Your task to perform on an android device: toggle wifi Image 0: 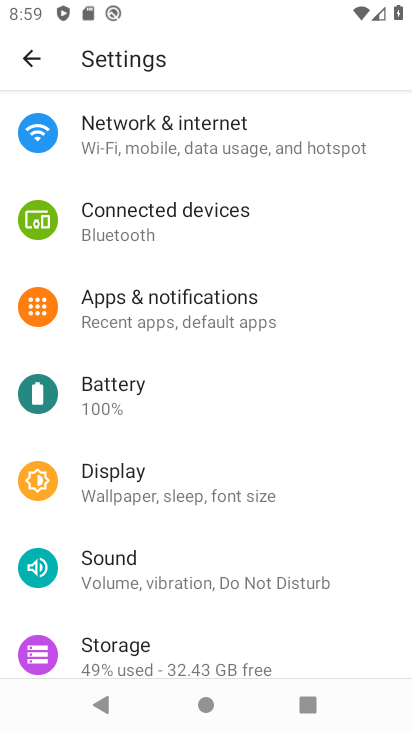
Step 0: press home button
Your task to perform on an android device: toggle wifi Image 1: 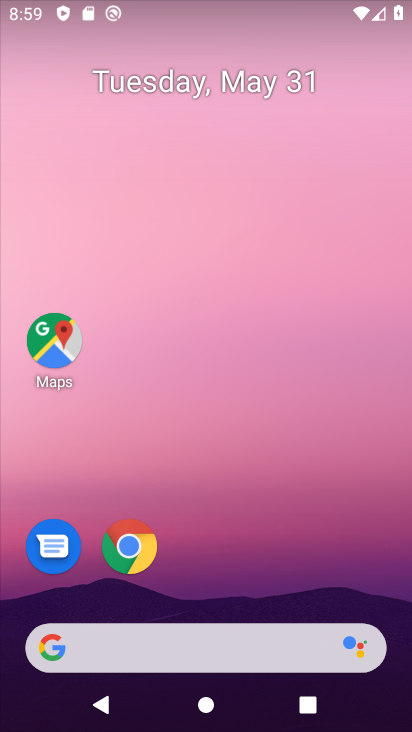
Step 1: drag from (404, 549) to (381, 109)
Your task to perform on an android device: toggle wifi Image 2: 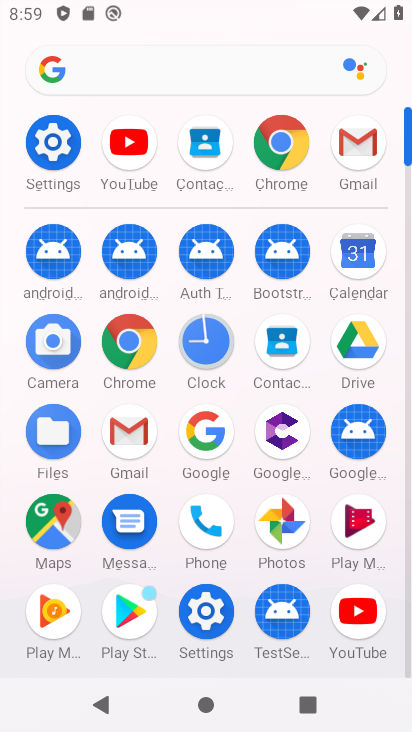
Step 2: click (55, 141)
Your task to perform on an android device: toggle wifi Image 3: 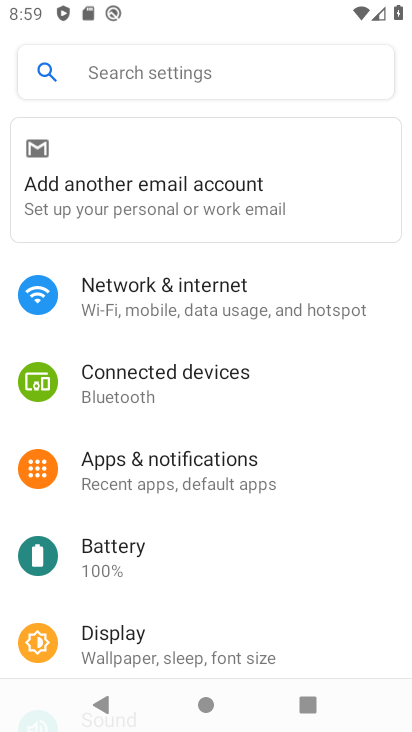
Step 3: click (165, 309)
Your task to perform on an android device: toggle wifi Image 4: 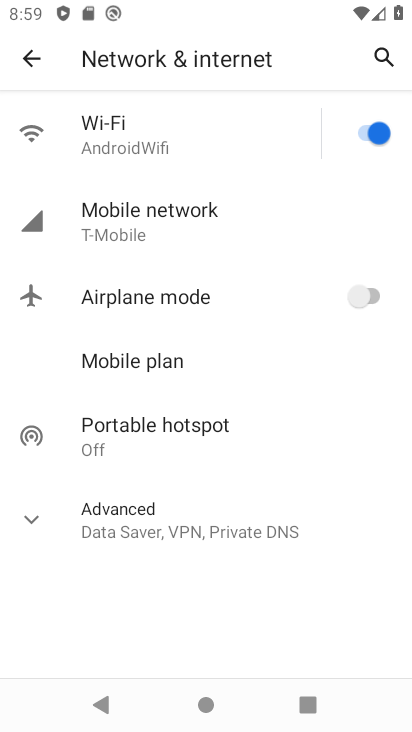
Step 4: click (356, 128)
Your task to perform on an android device: toggle wifi Image 5: 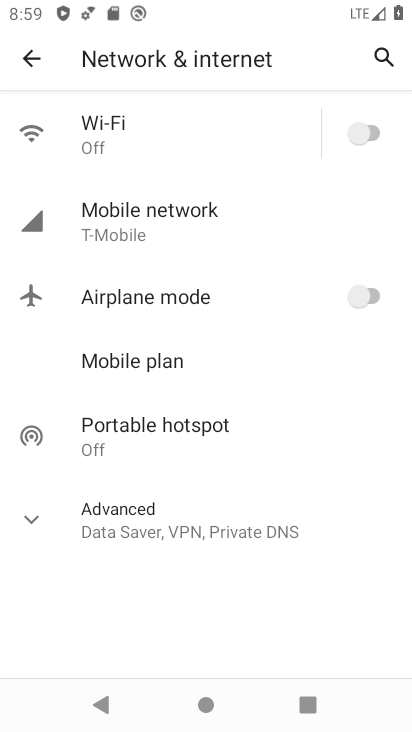
Step 5: task complete